Your task to perform on an android device: Go to location settings Image 0: 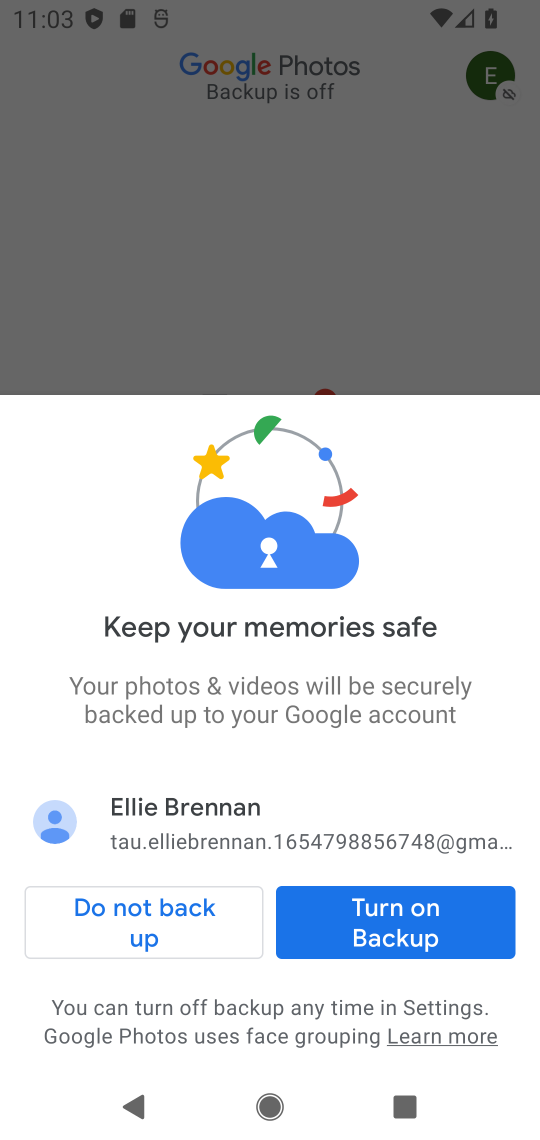
Step 0: press home button
Your task to perform on an android device: Go to location settings Image 1: 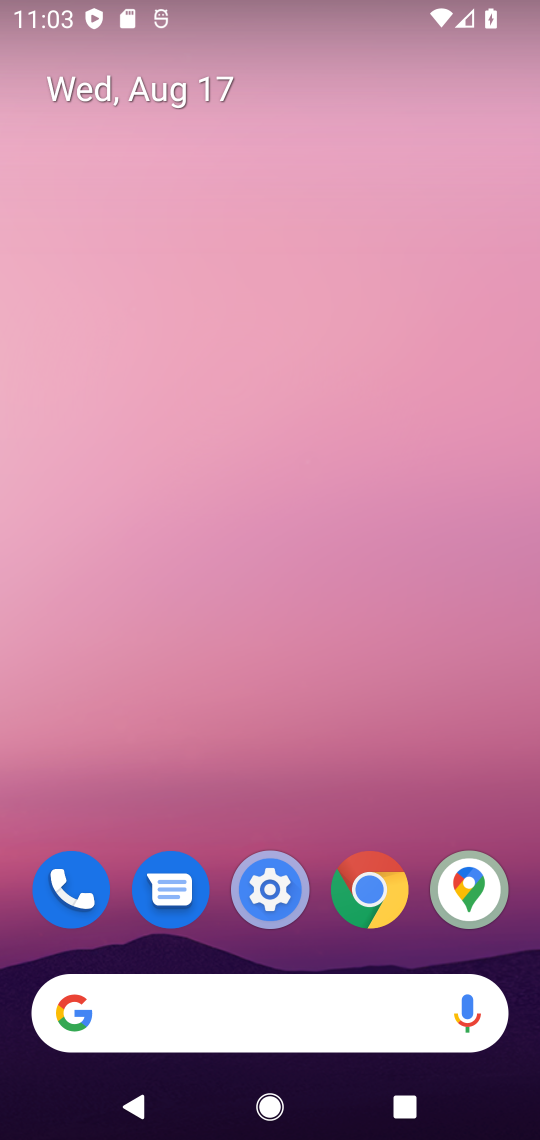
Step 1: click (270, 891)
Your task to perform on an android device: Go to location settings Image 2: 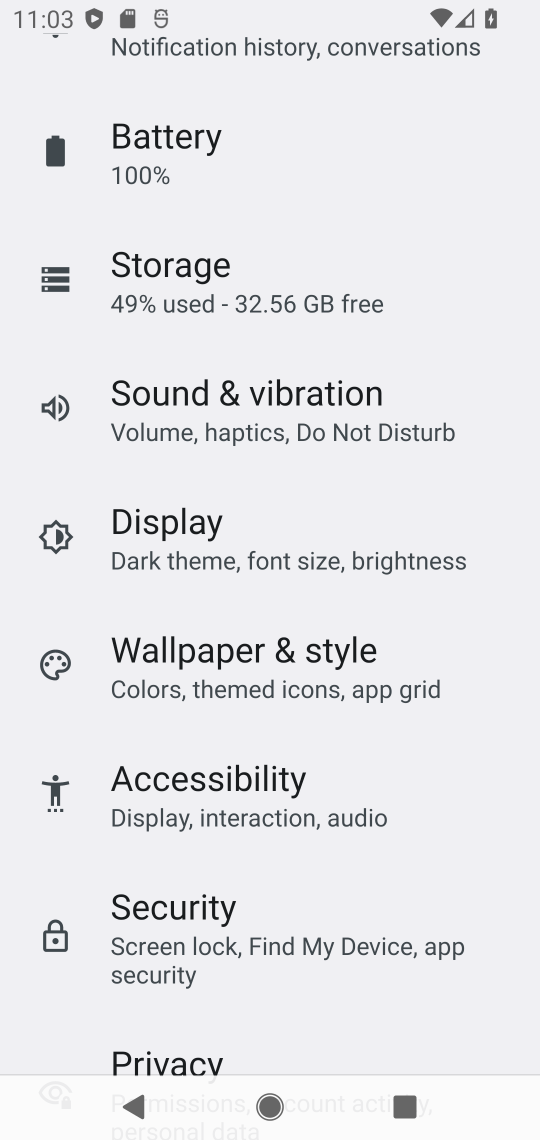
Step 2: drag from (324, 842) to (254, 184)
Your task to perform on an android device: Go to location settings Image 3: 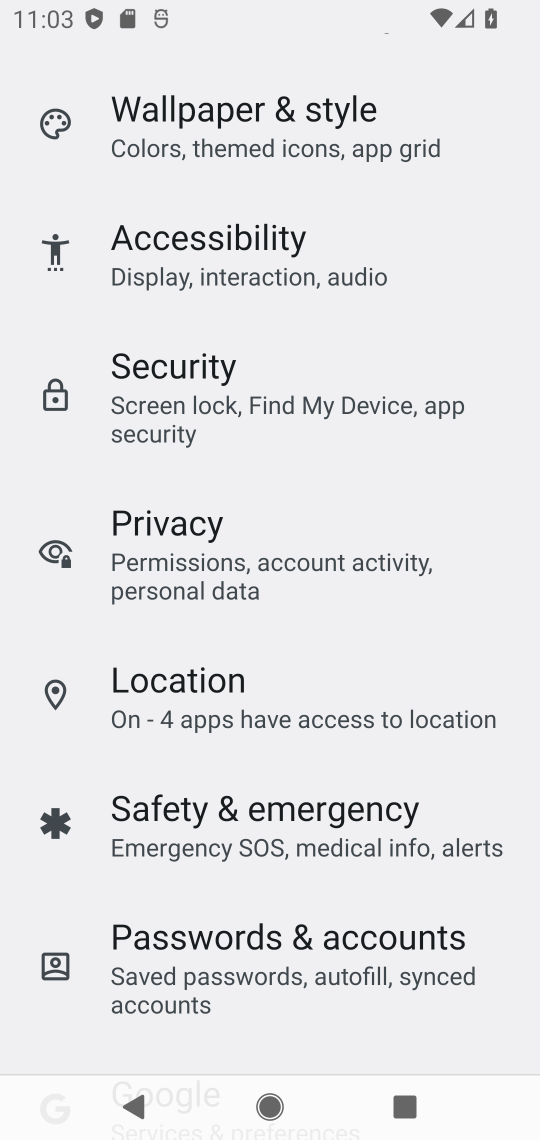
Step 3: click (224, 673)
Your task to perform on an android device: Go to location settings Image 4: 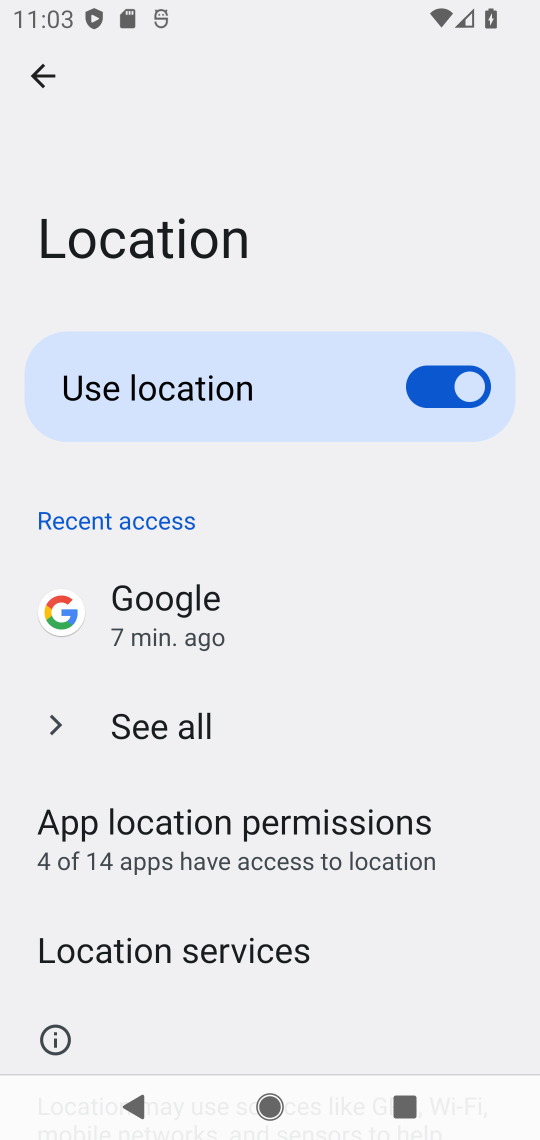
Step 4: task complete